Your task to perform on an android device: check storage Image 0: 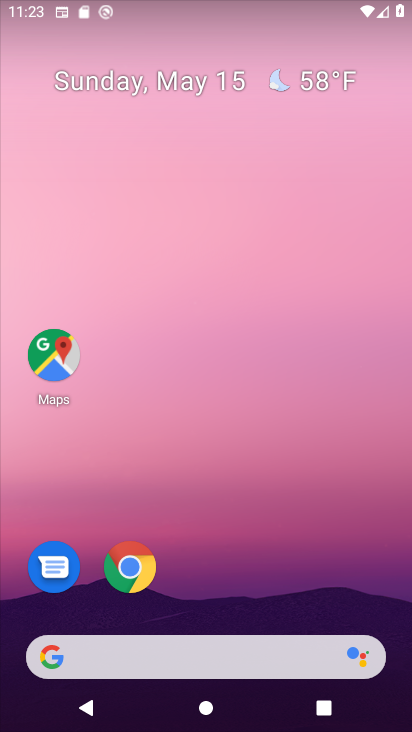
Step 0: drag from (232, 623) to (221, 126)
Your task to perform on an android device: check storage Image 1: 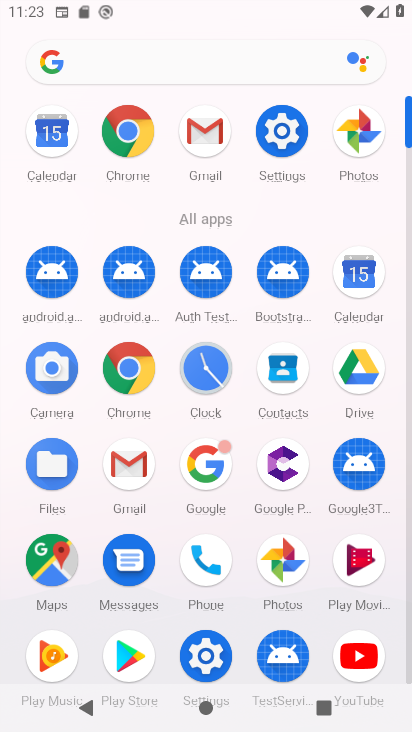
Step 1: click (286, 128)
Your task to perform on an android device: check storage Image 2: 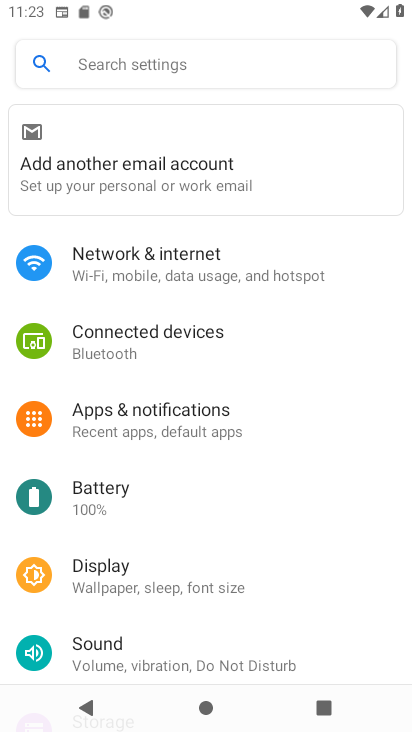
Step 2: drag from (145, 616) to (220, 140)
Your task to perform on an android device: check storage Image 3: 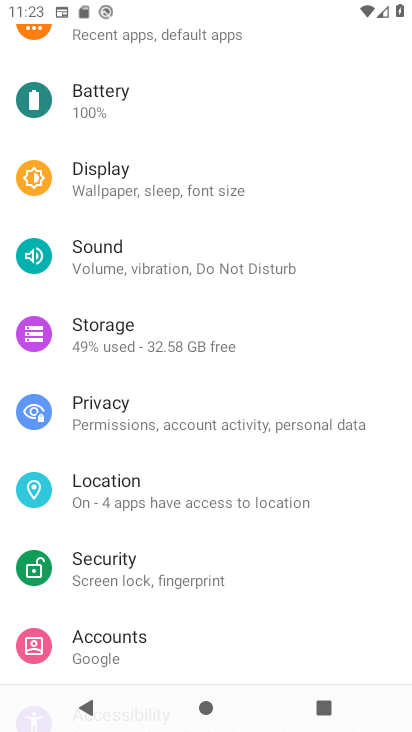
Step 3: click (160, 344)
Your task to perform on an android device: check storage Image 4: 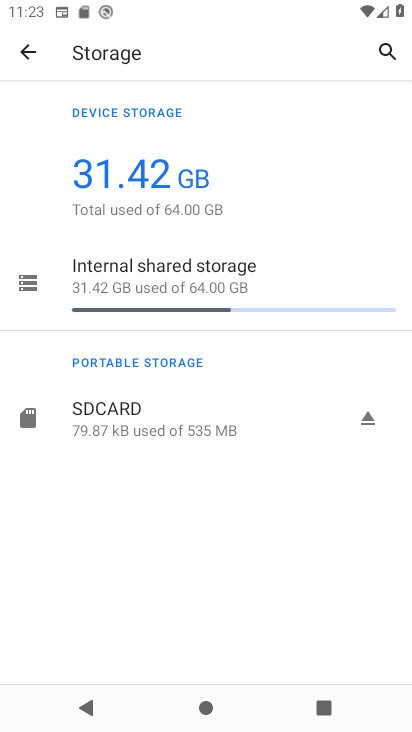
Step 4: task complete